Your task to perform on an android device: find snoozed emails in the gmail app Image 0: 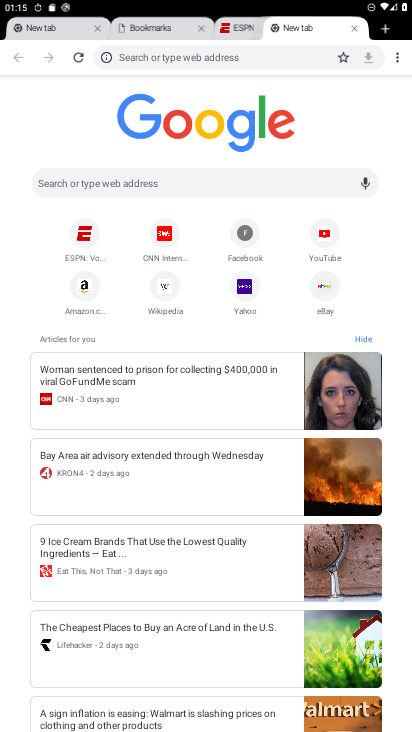
Step 0: press home button
Your task to perform on an android device: find snoozed emails in the gmail app Image 1: 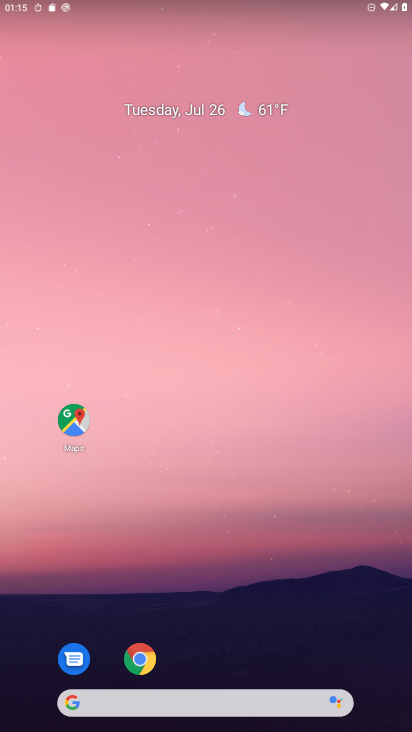
Step 1: drag from (43, 688) to (188, 245)
Your task to perform on an android device: find snoozed emails in the gmail app Image 2: 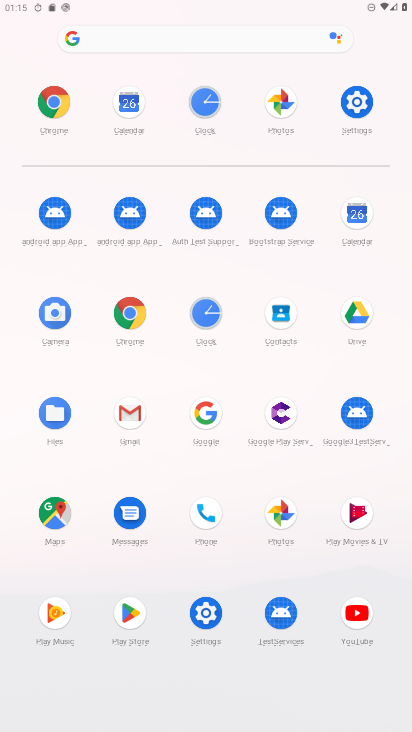
Step 2: click (133, 428)
Your task to perform on an android device: find snoozed emails in the gmail app Image 3: 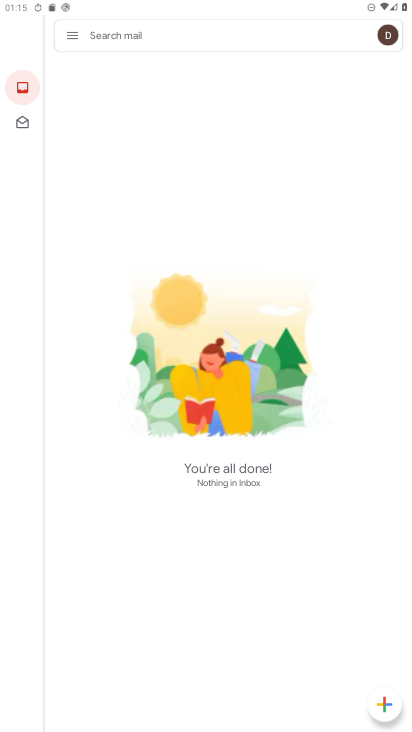
Step 3: click (71, 34)
Your task to perform on an android device: find snoozed emails in the gmail app Image 4: 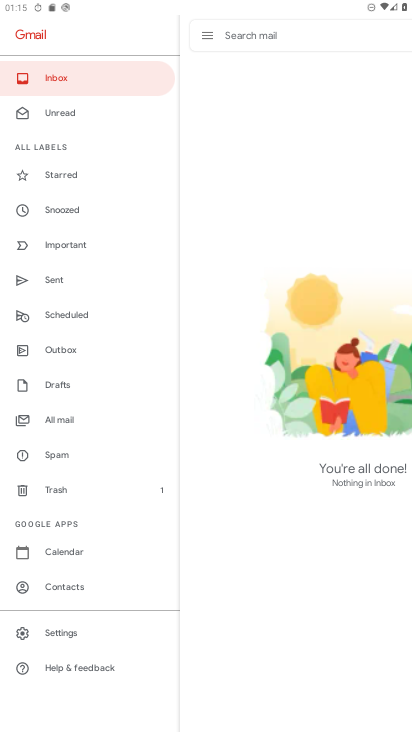
Step 4: click (75, 214)
Your task to perform on an android device: find snoozed emails in the gmail app Image 5: 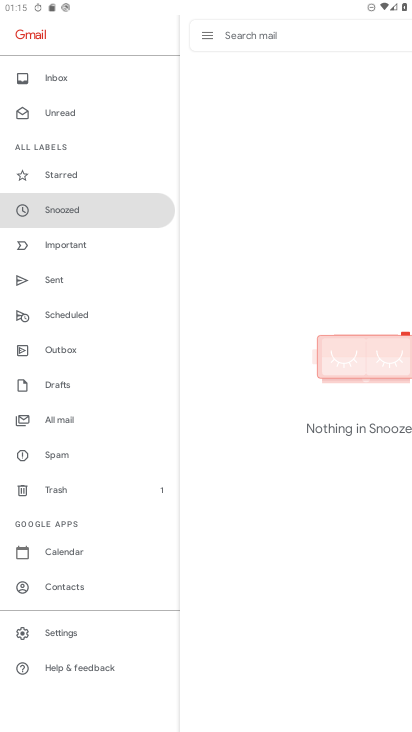
Step 5: task complete